Your task to perform on an android device: star an email in the gmail app Image 0: 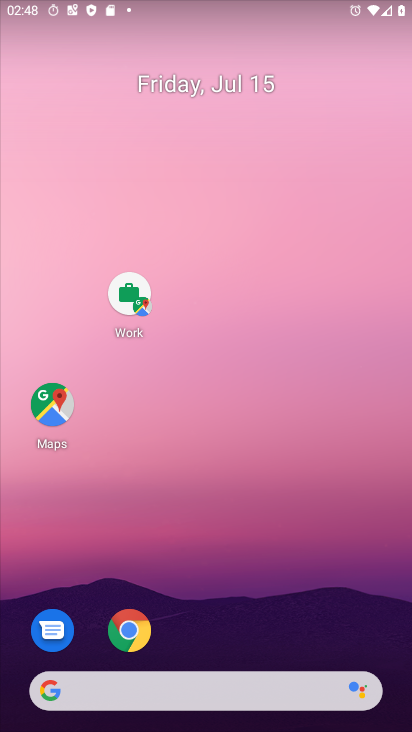
Step 0: drag from (214, 645) to (214, 183)
Your task to perform on an android device: star an email in the gmail app Image 1: 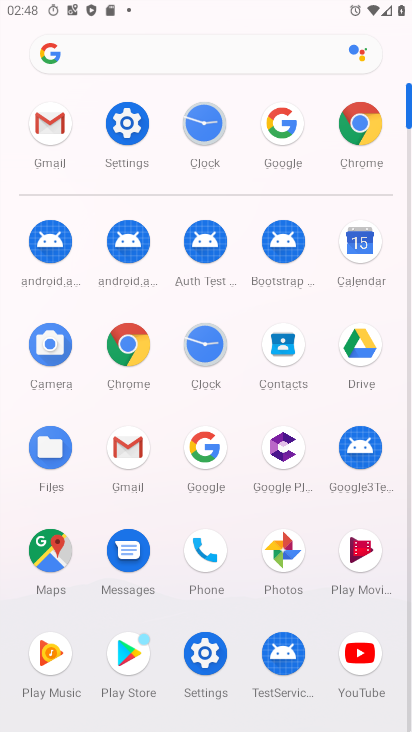
Step 1: click (64, 125)
Your task to perform on an android device: star an email in the gmail app Image 2: 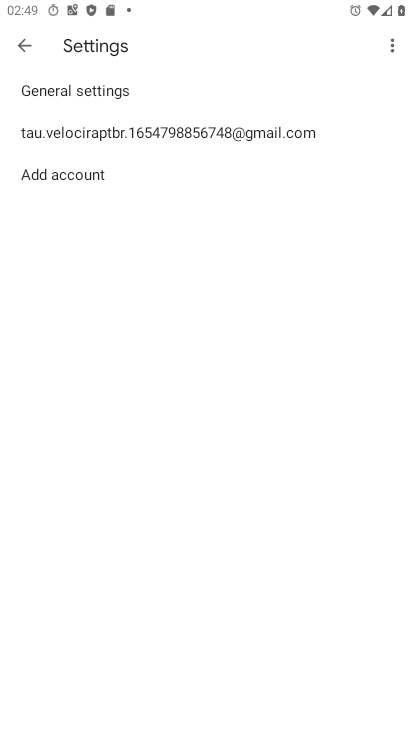
Step 2: click (32, 50)
Your task to perform on an android device: star an email in the gmail app Image 3: 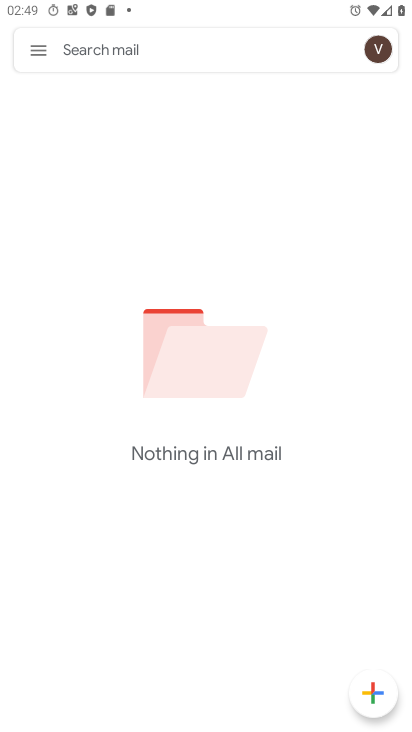
Step 3: task complete